Your task to perform on an android device: Open privacy settings Image 0: 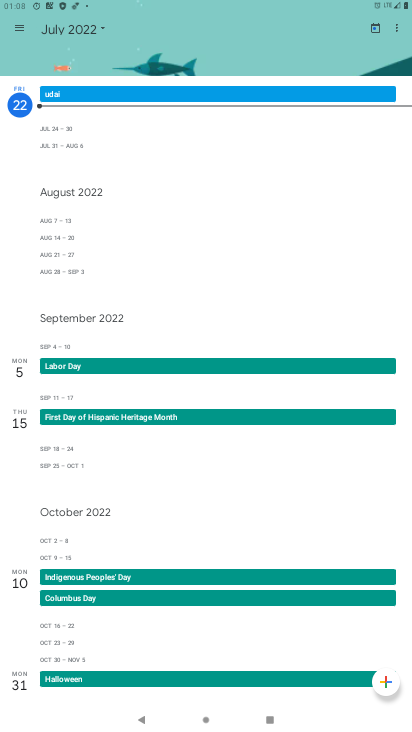
Step 0: press home button
Your task to perform on an android device: Open privacy settings Image 1: 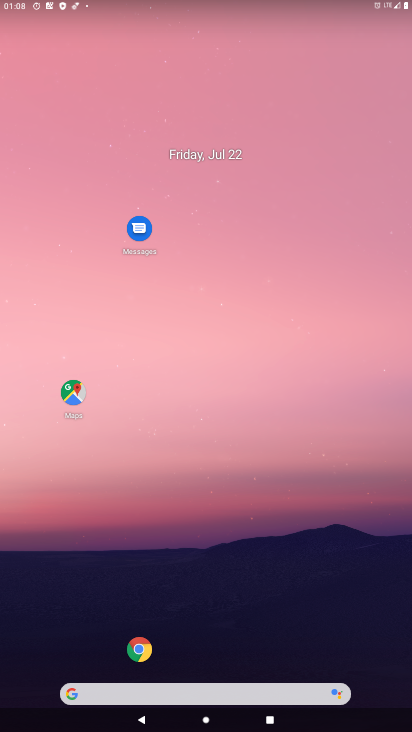
Step 1: drag from (191, 458) to (373, 46)
Your task to perform on an android device: Open privacy settings Image 2: 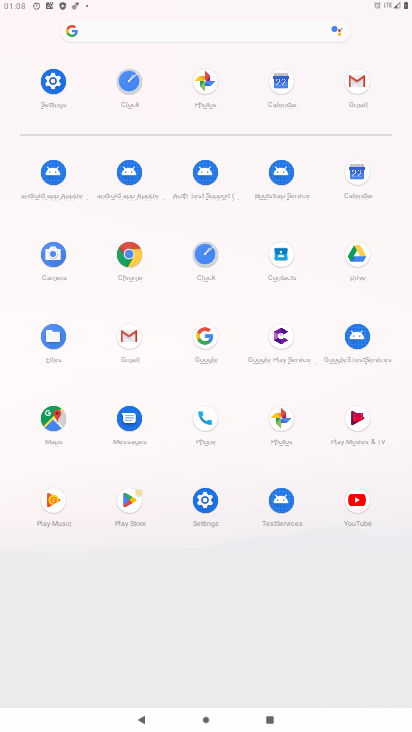
Step 2: click (234, 494)
Your task to perform on an android device: Open privacy settings Image 3: 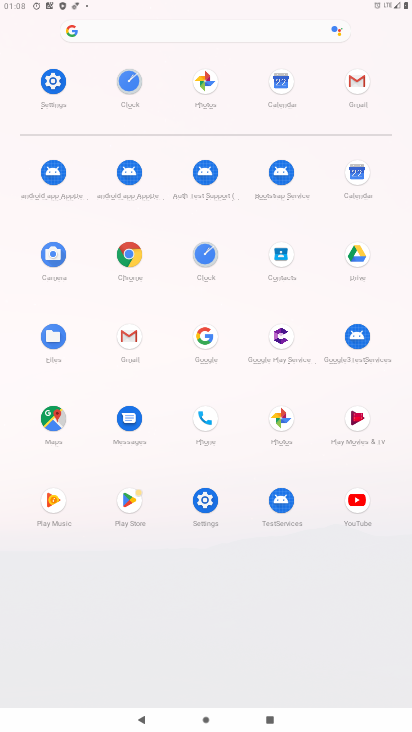
Step 3: click (219, 513)
Your task to perform on an android device: Open privacy settings Image 4: 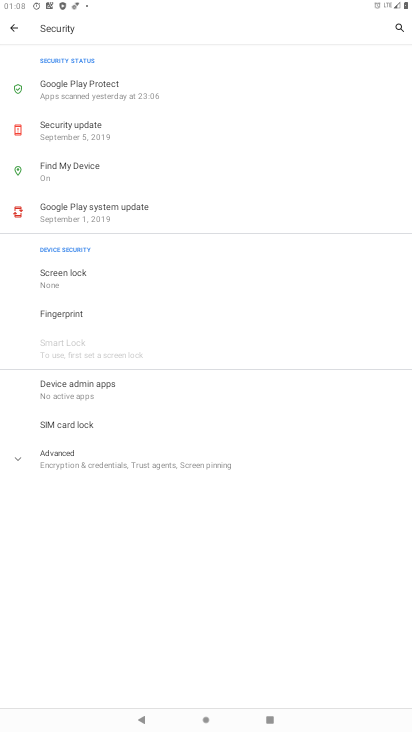
Step 4: click (13, 26)
Your task to perform on an android device: Open privacy settings Image 5: 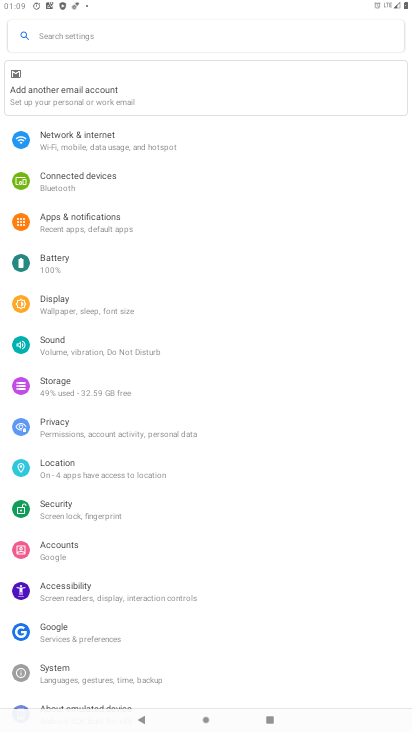
Step 5: click (77, 144)
Your task to perform on an android device: Open privacy settings Image 6: 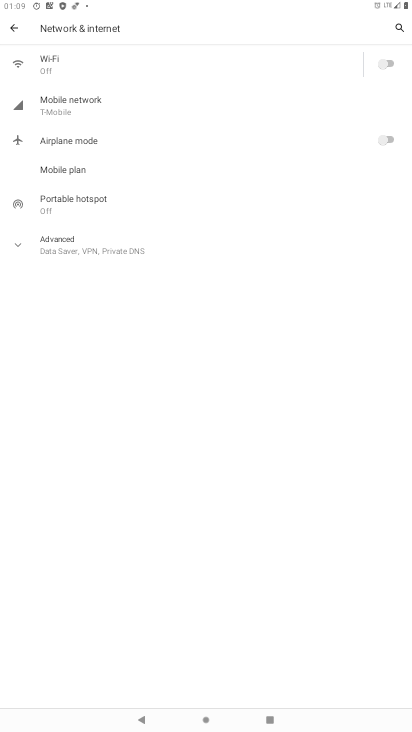
Step 6: click (14, 22)
Your task to perform on an android device: Open privacy settings Image 7: 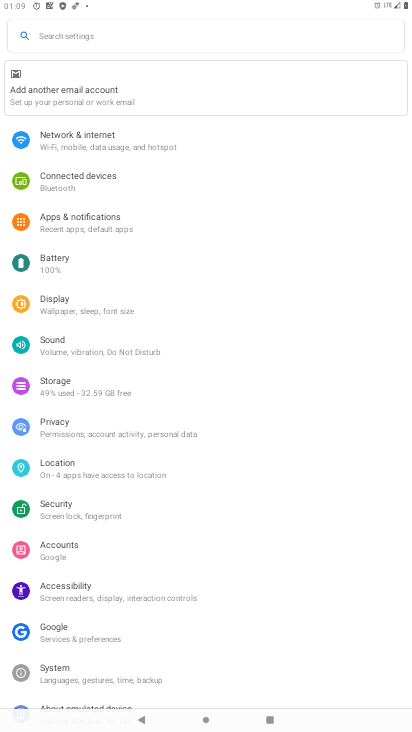
Step 7: click (78, 431)
Your task to perform on an android device: Open privacy settings Image 8: 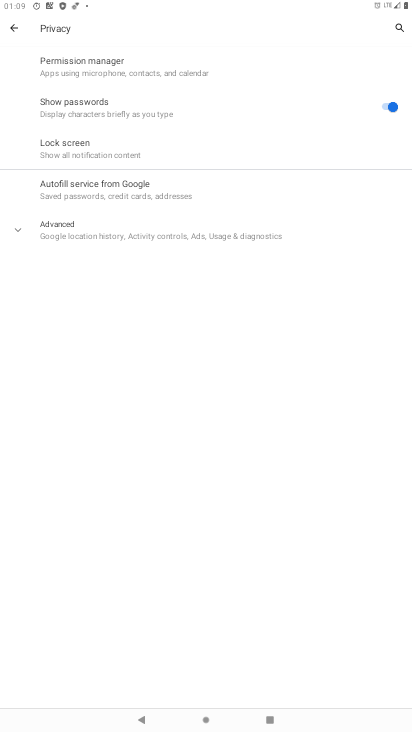
Step 8: task complete